Your task to perform on an android device: turn notification dots off Image 0: 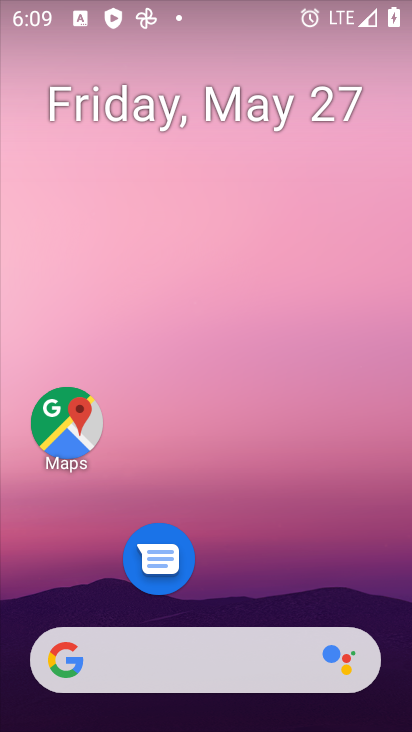
Step 0: drag from (272, 626) to (367, 9)
Your task to perform on an android device: turn notification dots off Image 1: 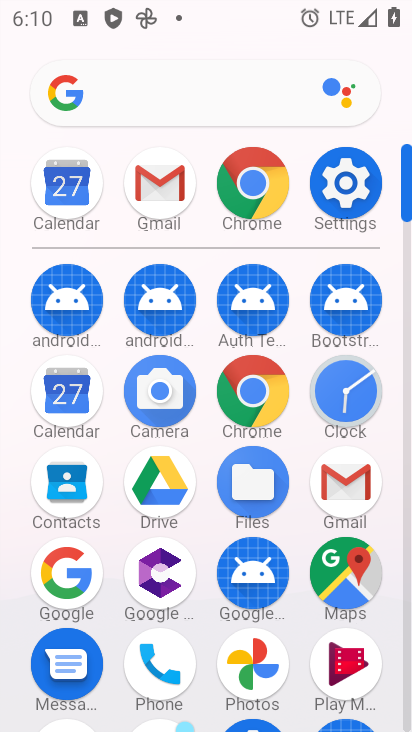
Step 1: click (332, 182)
Your task to perform on an android device: turn notification dots off Image 2: 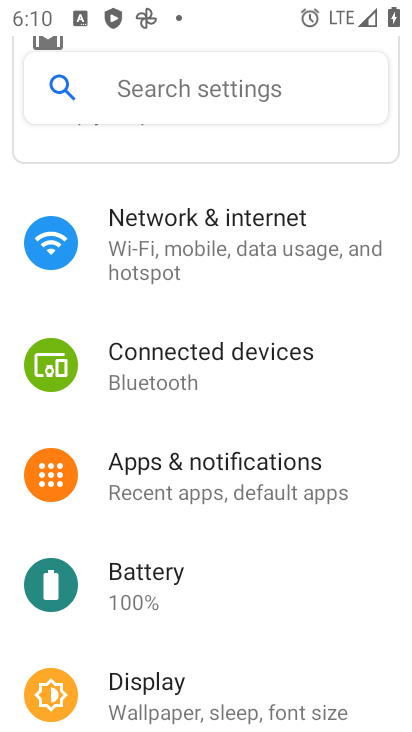
Step 2: click (218, 225)
Your task to perform on an android device: turn notification dots off Image 3: 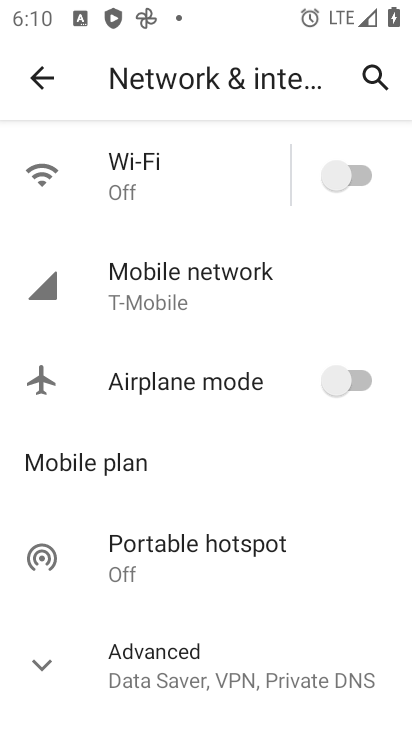
Step 3: press back button
Your task to perform on an android device: turn notification dots off Image 4: 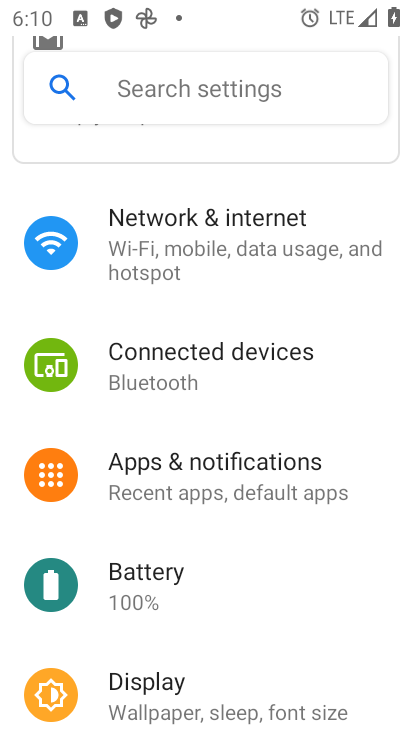
Step 4: click (302, 479)
Your task to perform on an android device: turn notification dots off Image 5: 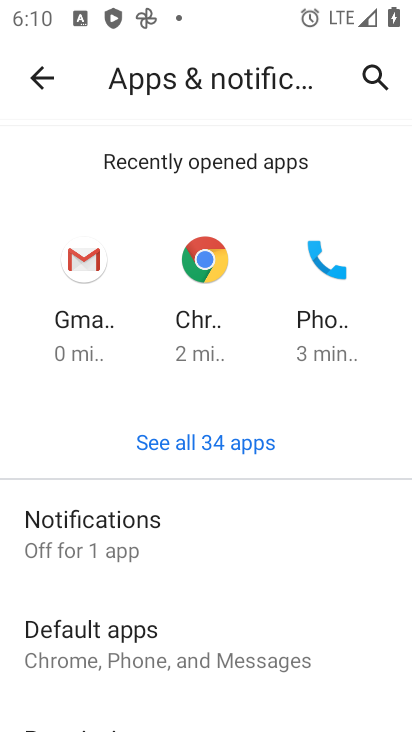
Step 5: drag from (196, 710) to (259, 207)
Your task to perform on an android device: turn notification dots off Image 6: 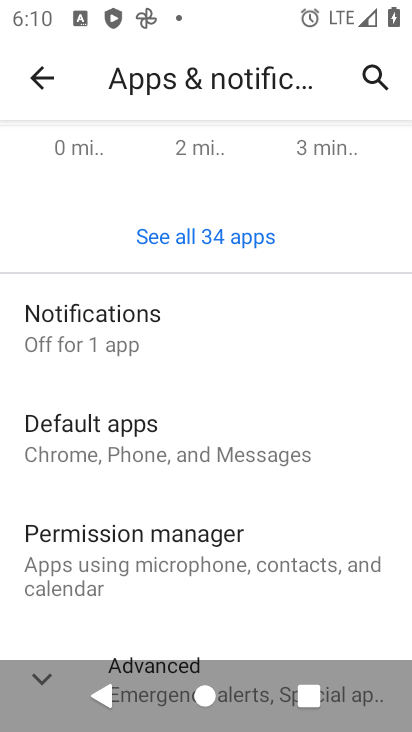
Step 6: click (180, 320)
Your task to perform on an android device: turn notification dots off Image 7: 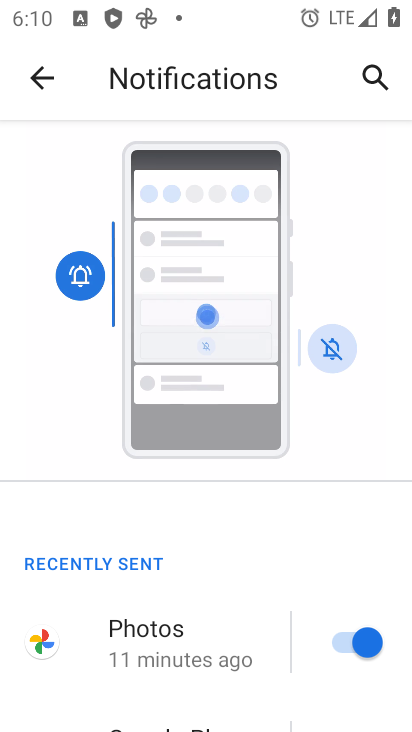
Step 7: drag from (194, 676) to (250, 67)
Your task to perform on an android device: turn notification dots off Image 8: 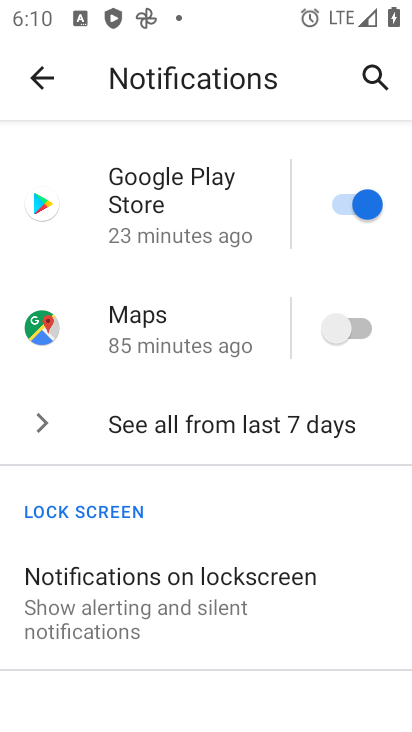
Step 8: drag from (225, 598) to (263, 126)
Your task to perform on an android device: turn notification dots off Image 9: 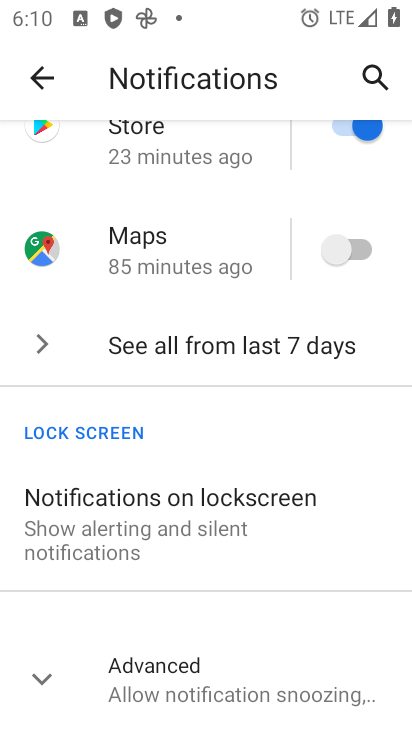
Step 9: click (185, 671)
Your task to perform on an android device: turn notification dots off Image 10: 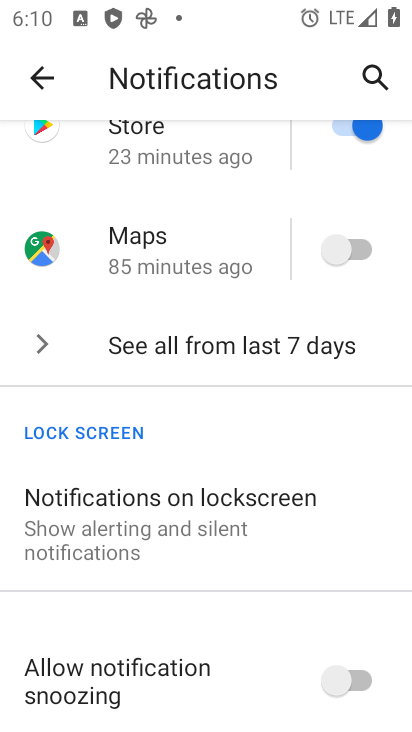
Step 10: drag from (203, 681) to (244, 136)
Your task to perform on an android device: turn notification dots off Image 11: 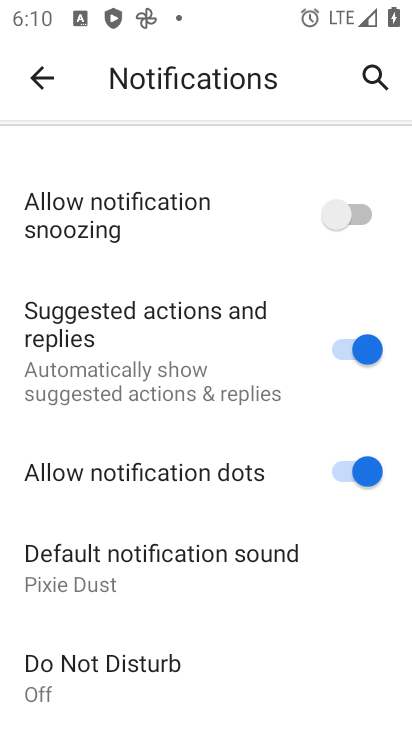
Step 11: click (345, 465)
Your task to perform on an android device: turn notification dots off Image 12: 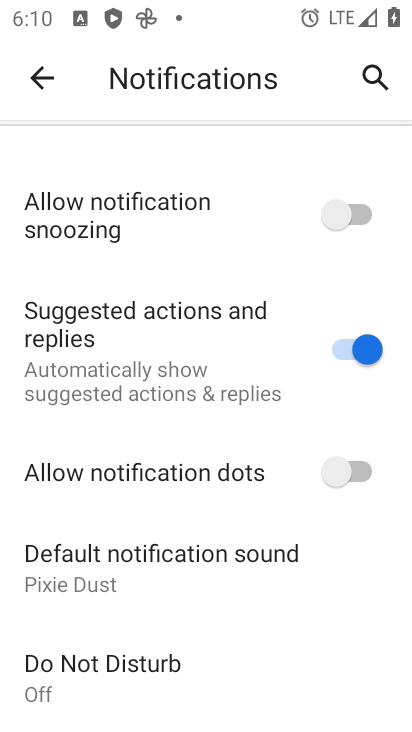
Step 12: task complete